Your task to perform on an android device: Go to wifi settings Image 0: 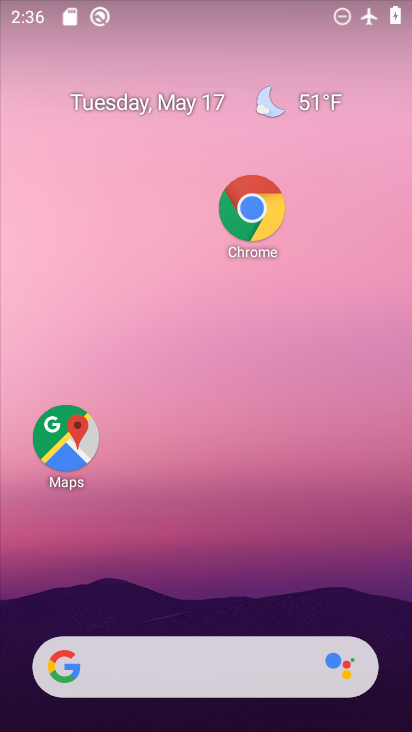
Step 0: drag from (225, 601) to (198, 167)
Your task to perform on an android device: Go to wifi settings Image 1: 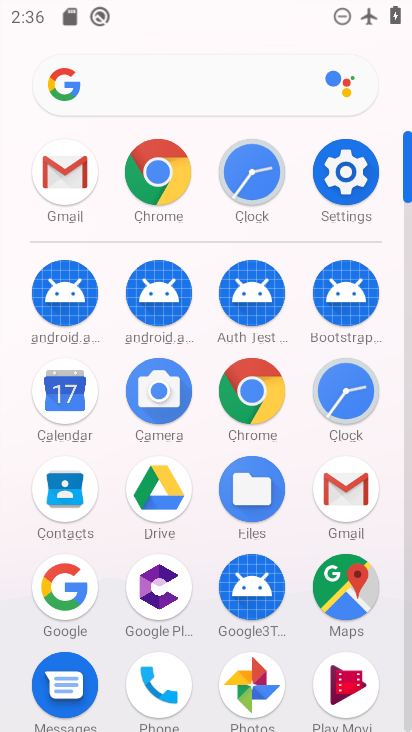
Step 1: click (335, 170)
Your task to perform on an android device: Go to wifi settings Image 2: 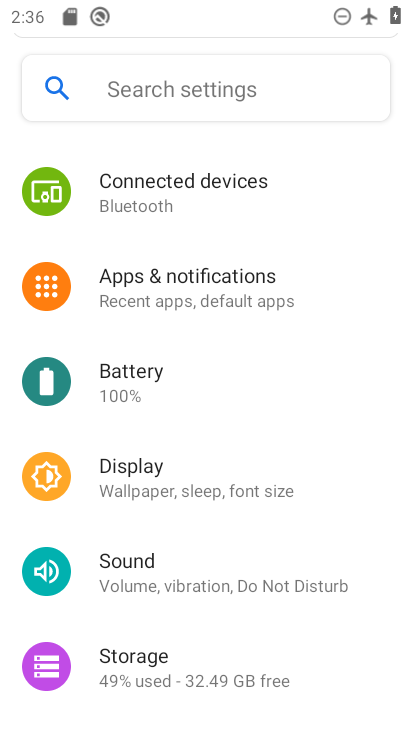
Step 2: drag from (223, 222) to (191, 524)
Your task to perform on an android device: Go to wifi settings Image 3: 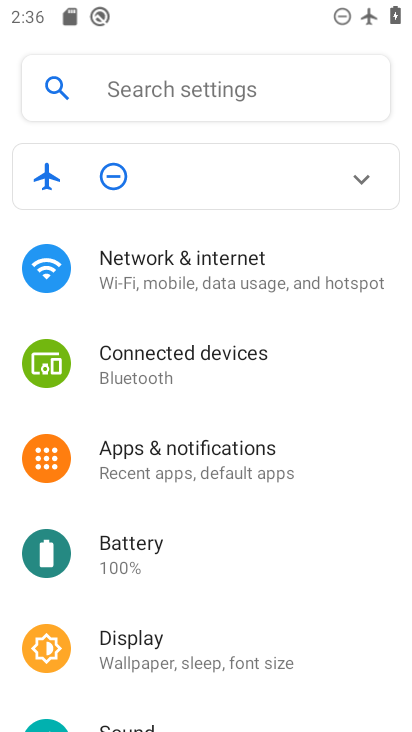
Step 3: click (168, 290)
Your task to perform on an android device: Go to wifi settings Image 4: 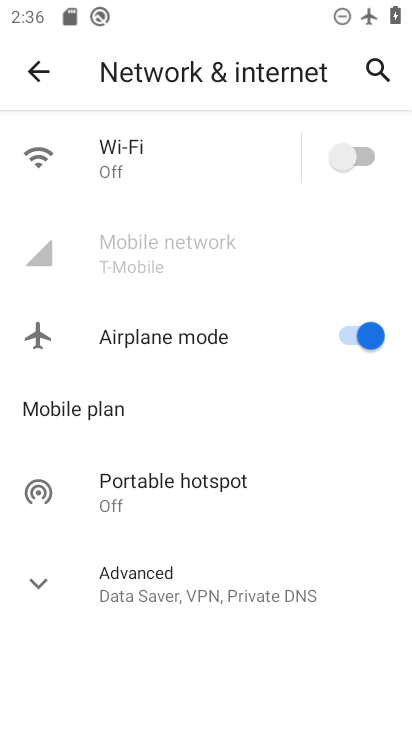
Step 4: click (179, 183)
Your task to perform on an android device: Go to wifi settings Image 5: 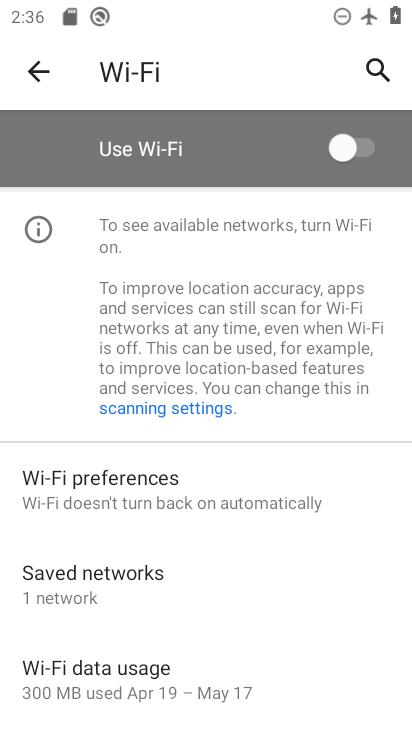
Step 5: task complete